Your task to perform on an android device: Go to Google maps Image 0: 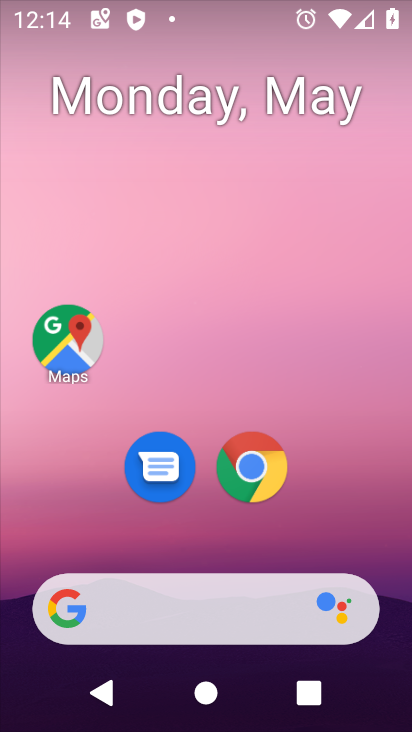
Step 0: drag from (393, 609) to (287, 296)
Your task to perform on an android device: Go to Google maps Image 1: 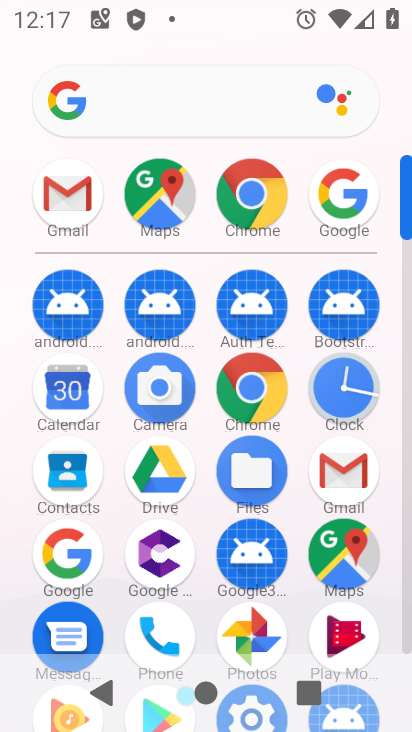
Step 1: click (312, 579)
Your task to perform on an android device: Go to Google maps Image 2: 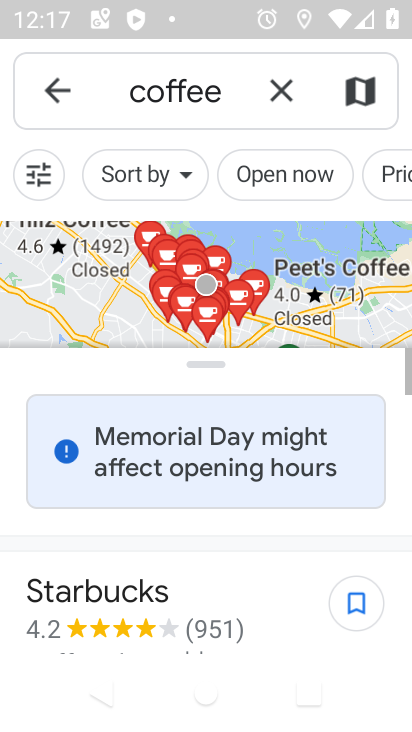
Step 2: click (295, 94)
Your task to perform on an android device: Go to Google maps Image 3: 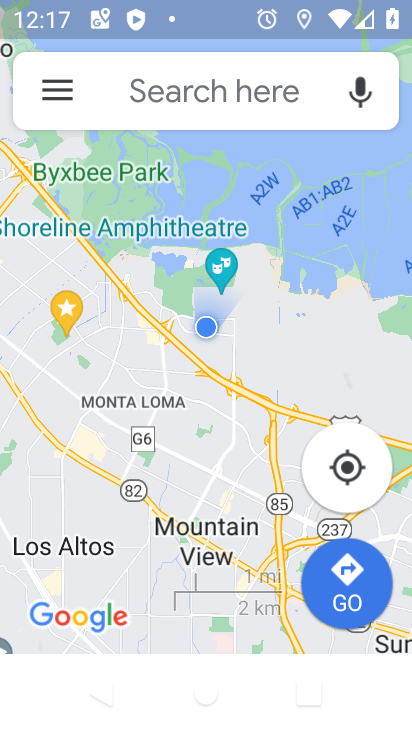
Step 3: task complete